Your task to perform on an android device: Search for a nice rug on Crate & Barrel Image 0: 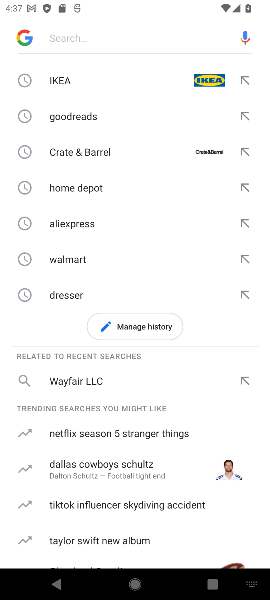
Step 0: click (87, 148)
Your task to perform on an android device: Search for a nice rug on Crate & Barrel Image 1: 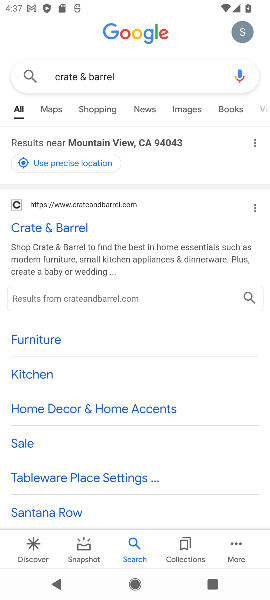
Step 1: click (59, 227)
Your task to perform on an android device: Search for a nice rug on Crate & Barrel Image 2: 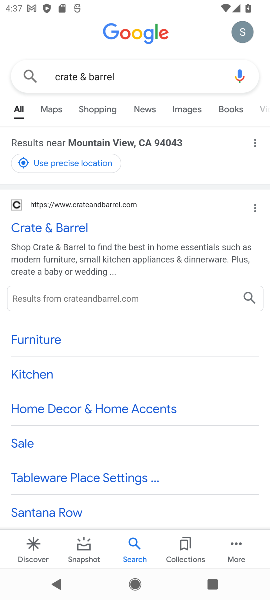
Step 2: click (59, 227)
Your task to perform on an android device: Search for a nice rug on Crate & Barrel Image 3: 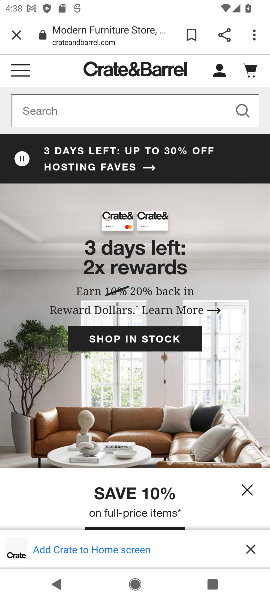
Step 3: click (74, 98)
Your task to perform on an android device: Search for a nice rug on Crate & Barrel Image 4: 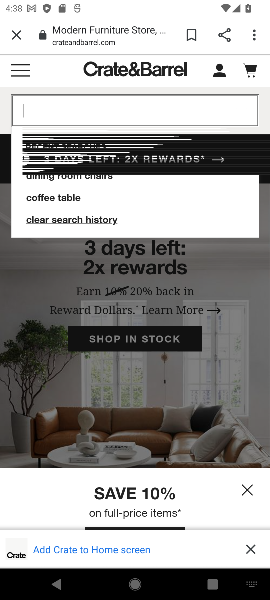
Step 4: type "nice rug"
Your task to perform on an android device: Search for a nice rug on Crate & Barrel Image 5: 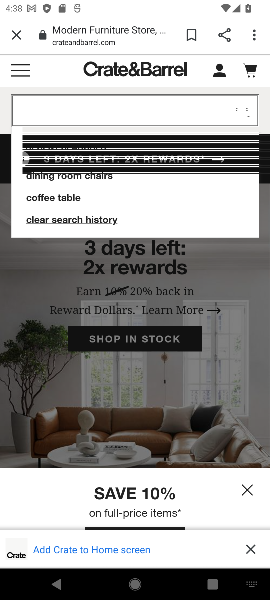
Step 5: type ""
Your task to perform on an android device: Search for a nice rug on Crate & Barrel Image 6: 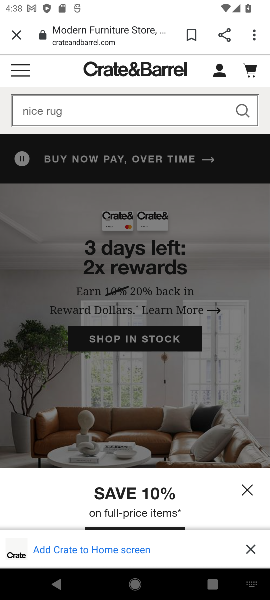
Step 6: press enter
Your task to perform on an android device: Search for a nice rug on Crate & Barrel Image 7: 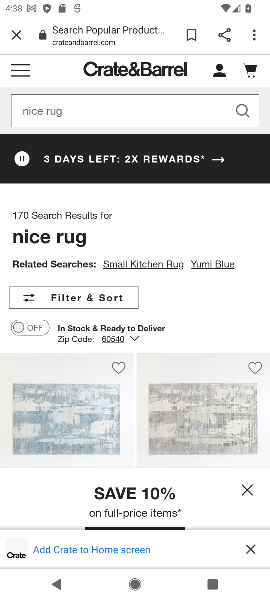
Step 7: click (247, 491)
Your task to perform on an android device: Search for a nice rug on Crate & Barrel Image 8: 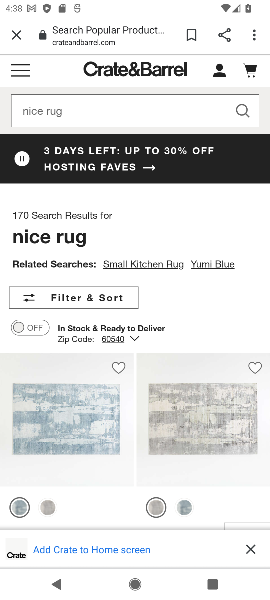
Step 8: click (88, 295)
Your task to perform on an android device: Search for a nice rug on Crate & Barrel Image 9: 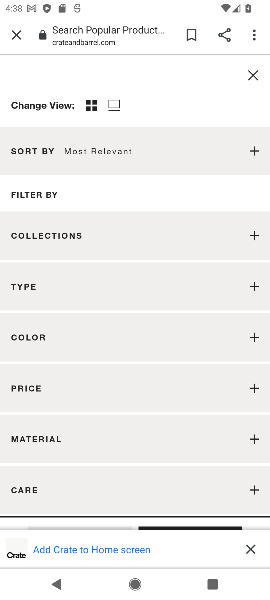
Step 9: click (254, 74)
Your task to perform on an android device: Search for a nice rug on Crate & Barrel Image 10: 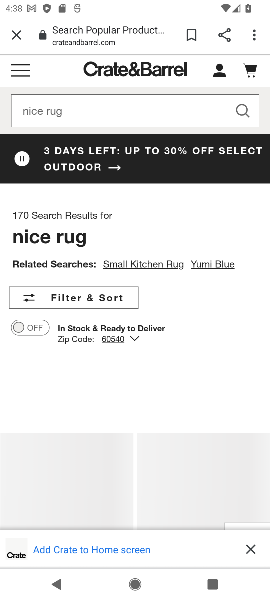
Step 10: click (211, 362)
Your task to perform on an android device: Search for a nice rug on Crate & Barrel Image 11: 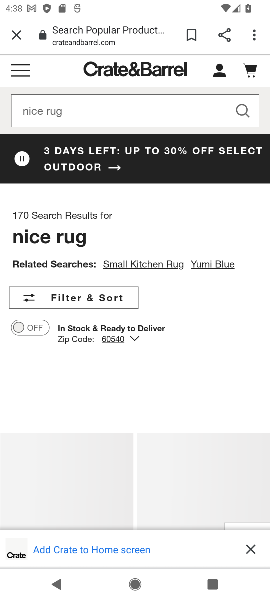
Step 11: drag from (211, 362) to (224, 137)
Your task to perform on an android device: Search for a nice rug on Crate & Barrel Image 12: 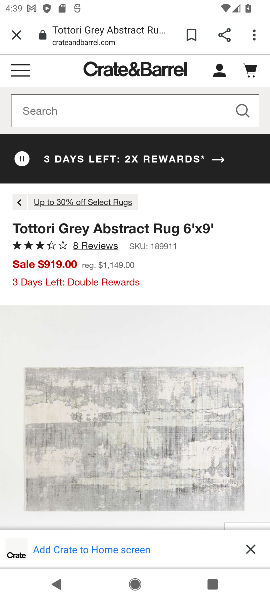
Step 12: press back button
Your task to perform on an android device: Search for a nice rug on Crate & Barrel Image 13: 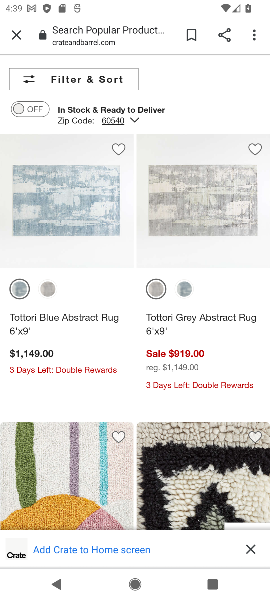
Step 13: drag from (204, 125) to (205, 69)
Your task to perform on an android device: Search for a nice rug on Crate & Barrel Image 14: 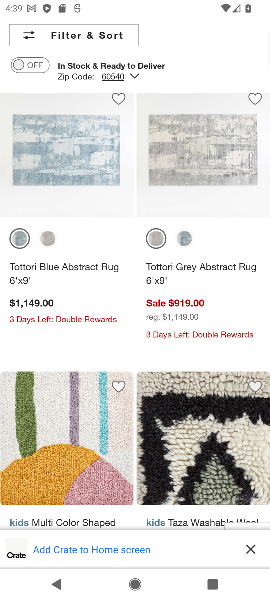
Step 14: drag from (136, 361) to (123, 141)
Your task to perform on an android device: Search for a nice rug on Crate & Barrel Image 15: 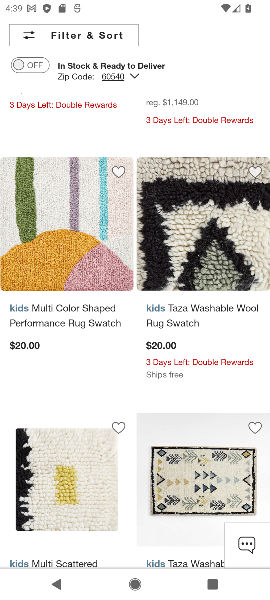
Step 15: drag from (127, 408) to (128, 141)
Your task to perform on an android device: Search for a nice rug on Crate & Barrel Image 16: 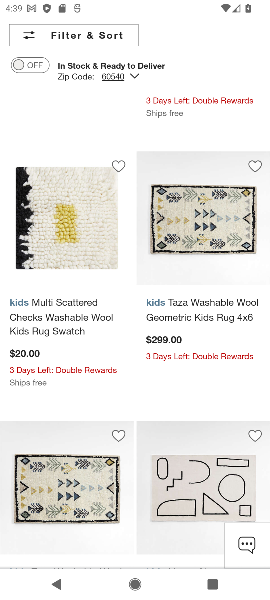
Step 16: drag from (131, 137) to (130, 110)
Your task to perform on an android device: Search for a nice rug on Crate & Barrel Image 17: 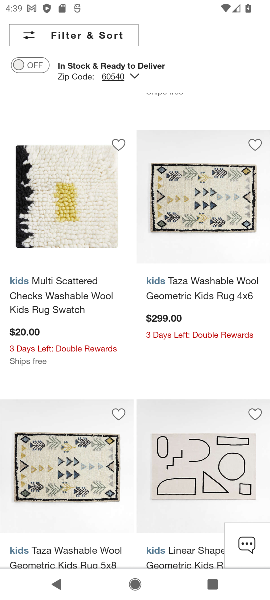
Step 17: click (130, 109)
Your task to perform on an android device: Search for a nice rug on Crate & Barrel Image 18: 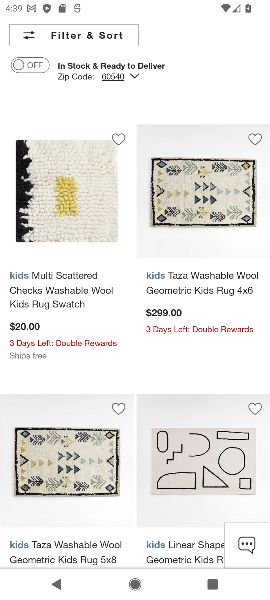
Step 18: task complete